Your task to perform on an android device: find which apps use the phone's location Image 0: 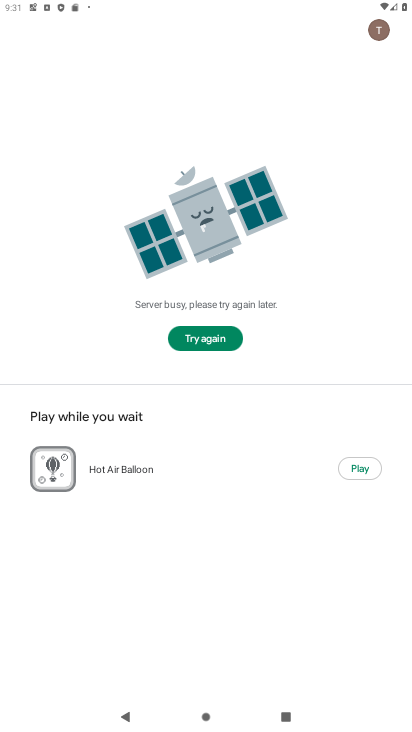
Step 0: press home button
Your task to perform on an android device: find which apps use the phone's location Image 1: 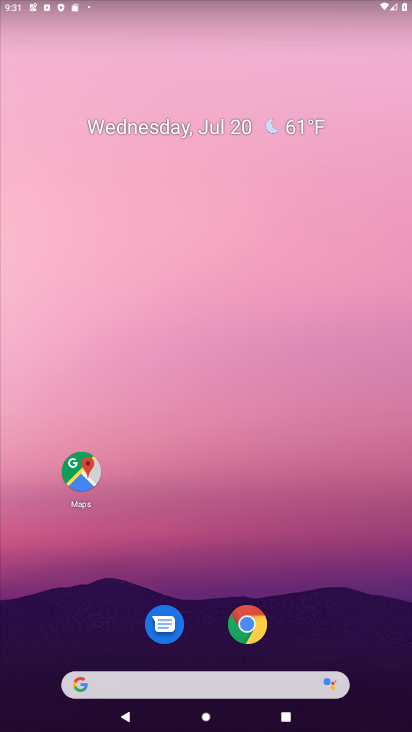
Step 1: drag from (197, 608) to (142, 162)
Your task to perform on an android device: find which apps use the phone's location Image 2: 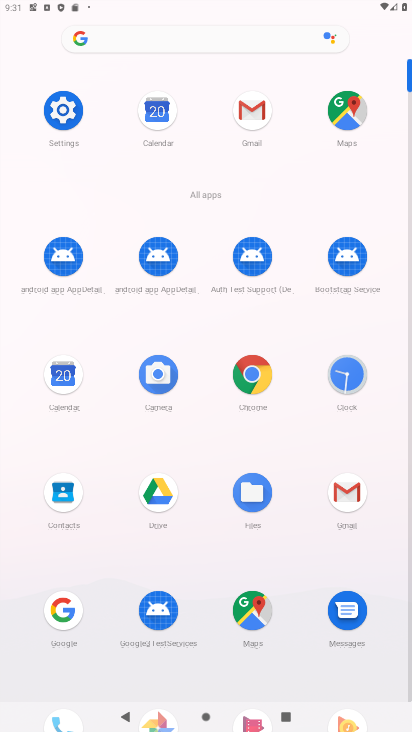
Step 2: click (58, 105)
Your task to perform on an android device: find which apps use the phone's location Image 3: 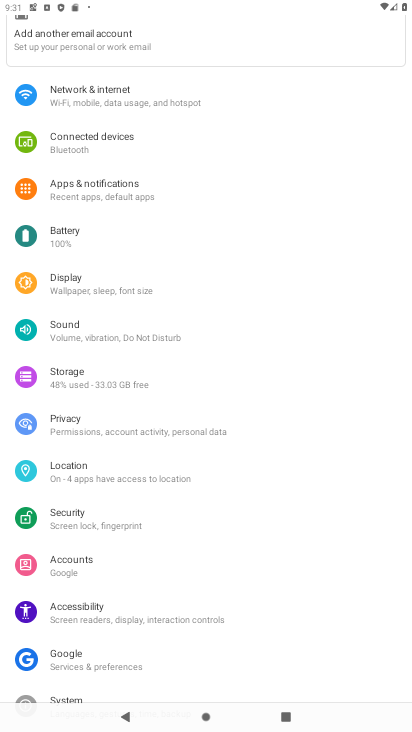
Step 3: click (106, 462)
Your task to perform on an android device: find which apps use the phone's location Image 4: 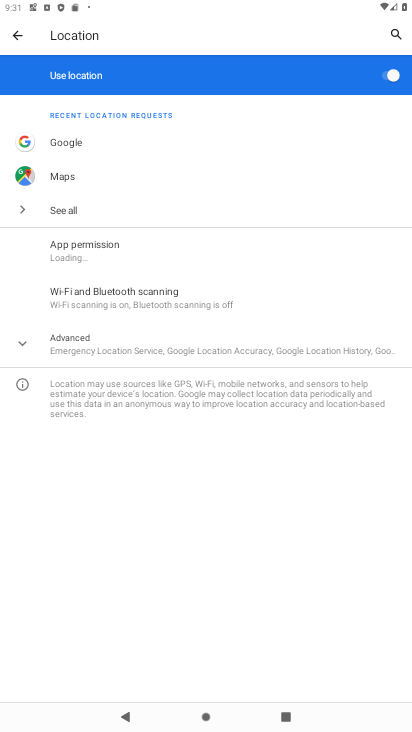
Step 4: click (138, 258)
Your task to perform on an android device: find which apps use the phone's location Image 5: 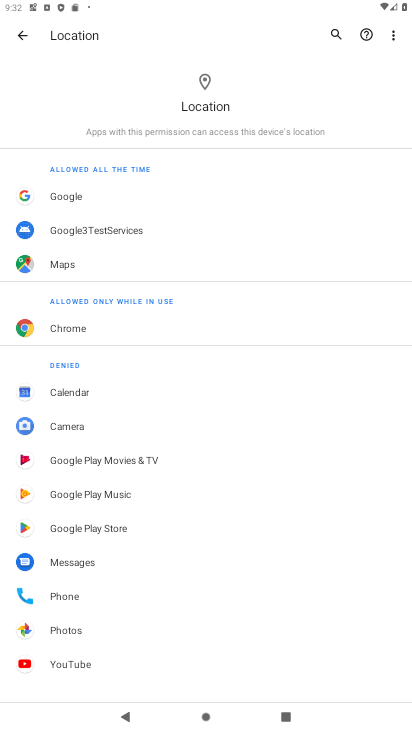
Step 5: task complete